Your task to perform on an android device: What's the weather going to be this weekend? Image 0: 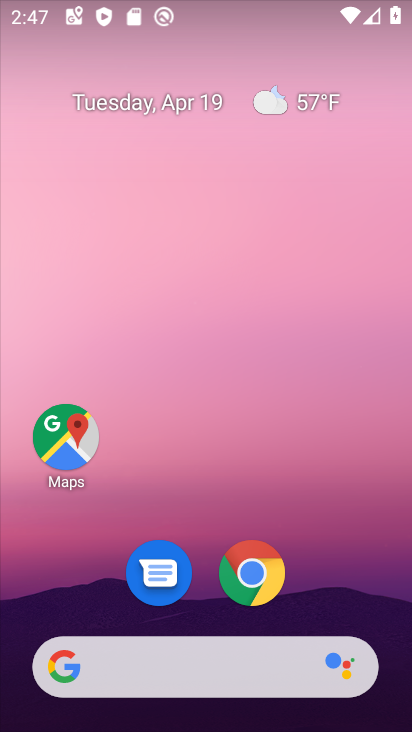
Step 0: click (319, 103)
Your task to perform on an android device: What's the weather going to be this weekend? Image 1: 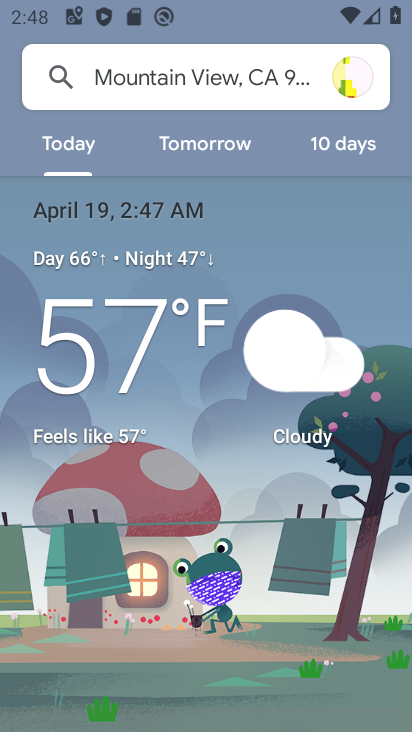
Step 1: click (332, 142)
Your task to perform on an android device: What's the weather going to be this weekend? Image 2: 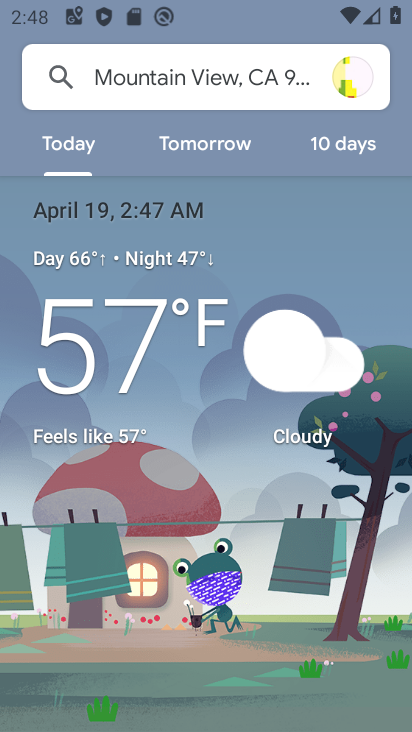
Step 2: click (335, 152)
Your task to perform on an android device: What's the weather going to be this weekend? Image 3: 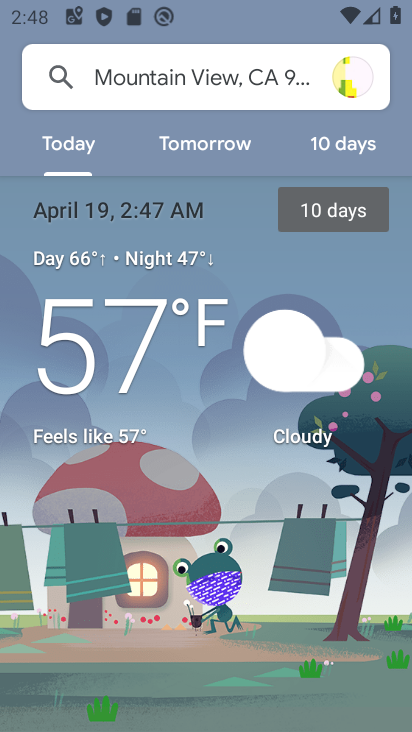
Step 3: click (353, 151)
Your task to perform on an android device: What's the weather going to be this weekend? Image 4: 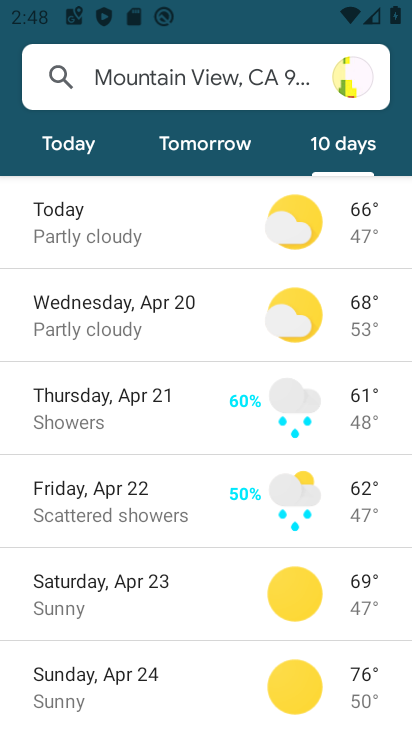
Step 4: task complete